Your task to perform on an android device: open app "Instagram" (install if not already installed) Image 0: 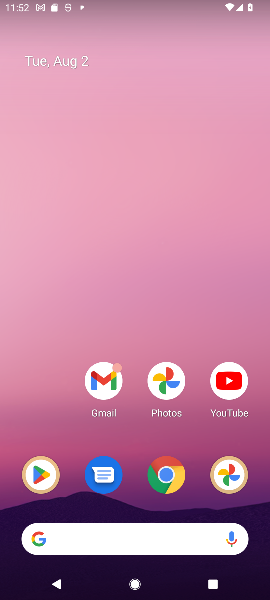
Step 0: click (42, 474)
Your task to perform on an android device: open app "Instagram" (install if not already installed) Image 1: 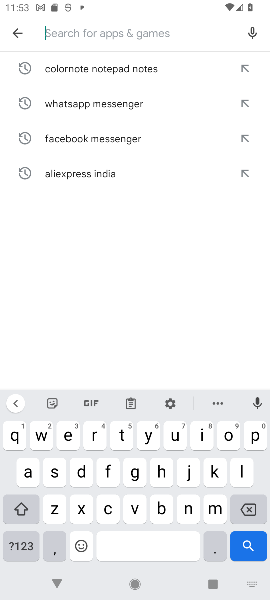
Step 1: type "Instagram"
Your task to perform on an android device: open app "Instagram" (install if not already installed) Image 2: 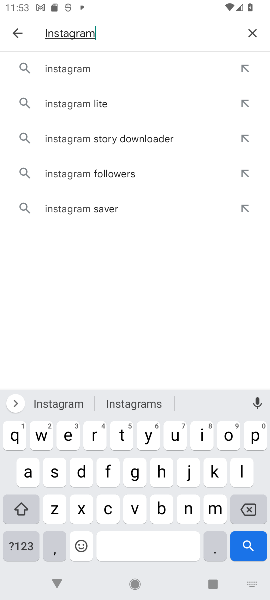
Step 2: click (106, 58)
Your task to perform on an android device: open app "Instagram" (install if not already installed) Image 3: 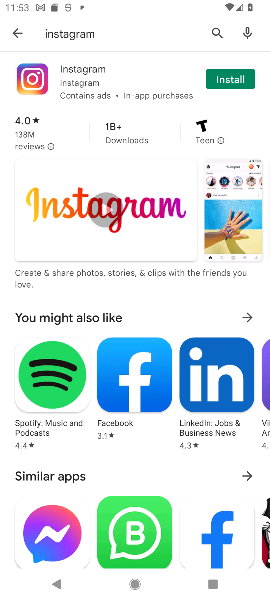
Step 3: task complete